Your task to perform on an android device: What is the recent news? Image 0: 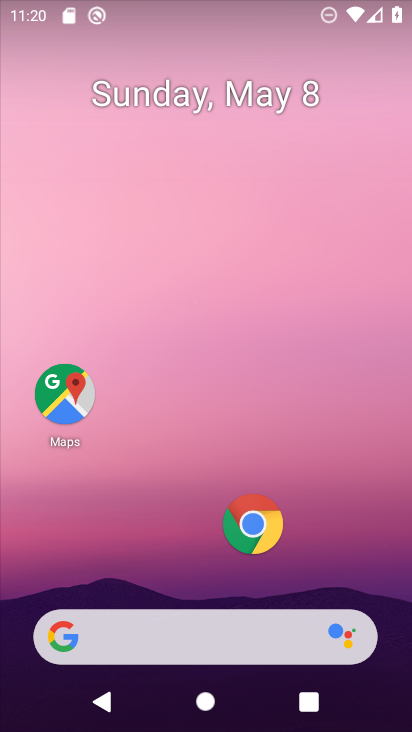
Step 0: click (245, 633)
Your task to perform on an android device: What is the recent news? Image 1: 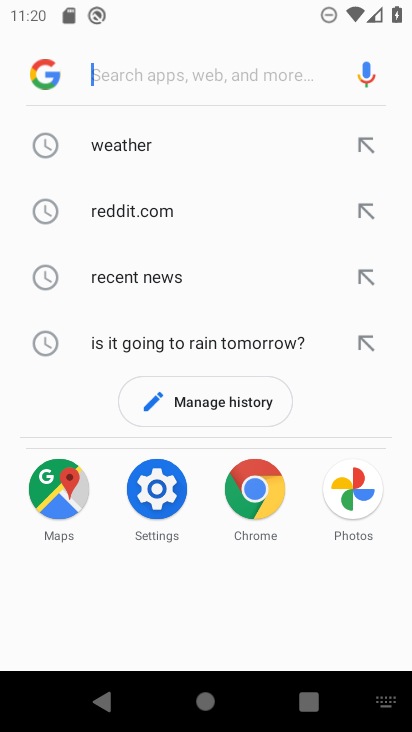
Step 1: click (37, 78)
Your task to perform on an android device: What is the recent news? Image 2: 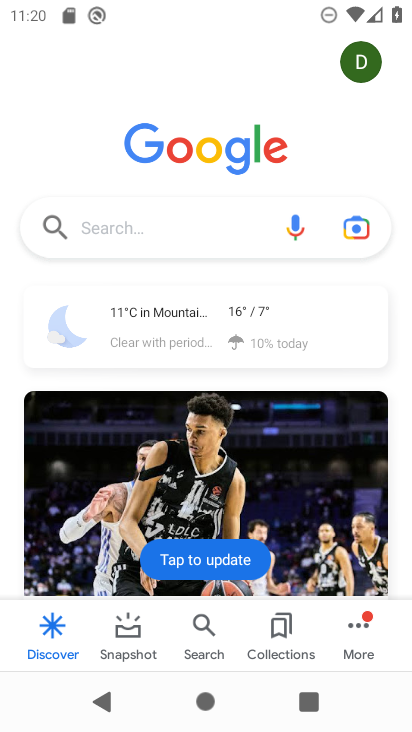
Step 2: drag from (154, 506) to (170, 280)
Your task to perform on an android device: What is the recent news? Image 3: 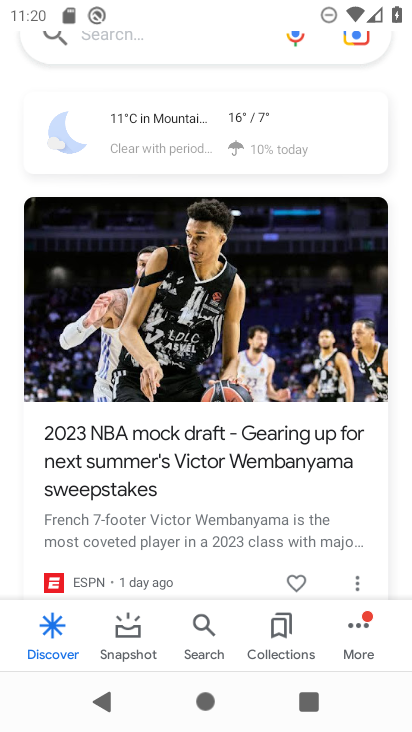
Step 3: click (165, 431)
Your task to perform on an android device: What is the recent news? Image 4: 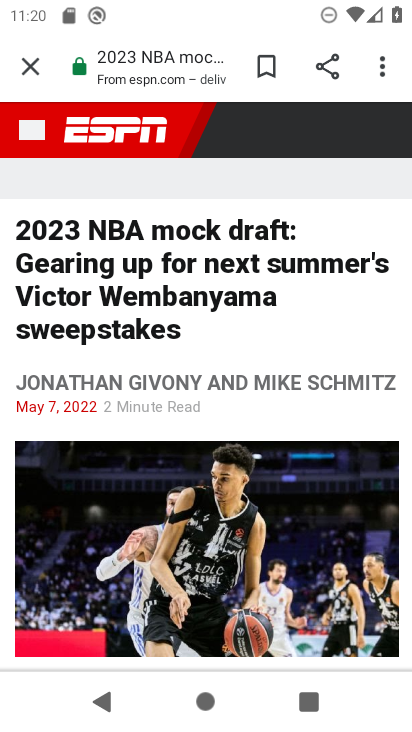
Step 4: click (23, 56)
Your task to perform on an android device: What is the recent news? Image 5: 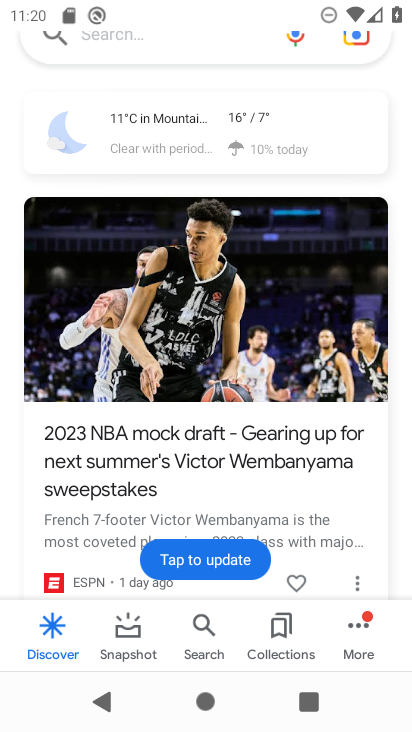
Step 5: drag from (298, 260) to (359, 604)
Your task to perform on an android device: What is the recent news? Image 6: 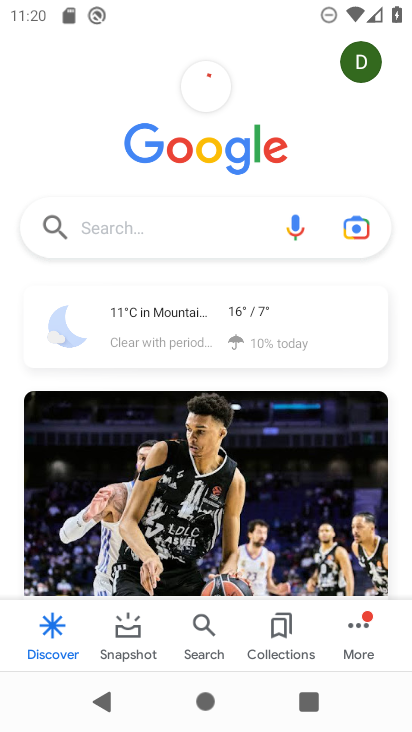
Step 6: click (165, 223)
Your task to perform on an android device: What is the recent news? Image 7: 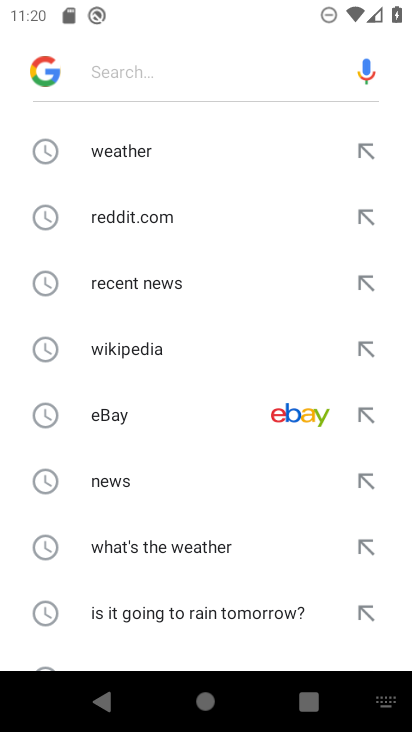
Step 7: click (115, 478)
Your task to perform on an android device: What is the recent news? Image 8: 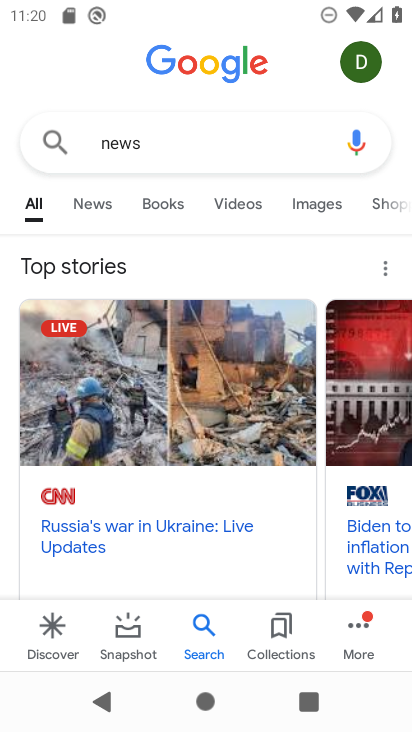
Step 8: click (96, 198)
Your task to perform on an android device: What is the recent news? Image 9: 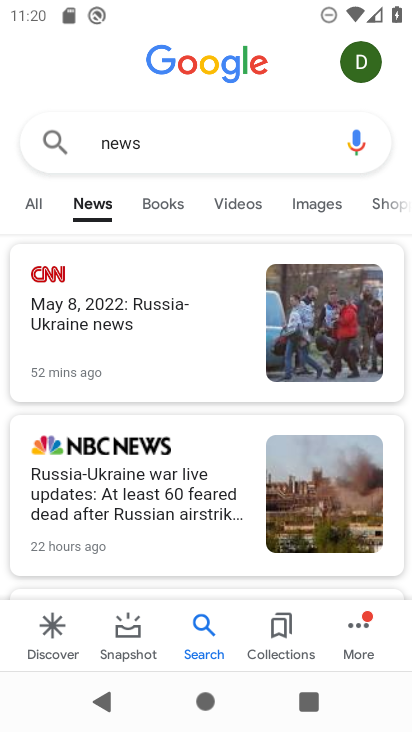
Step 9: task complete